Your task to perform on an android device: set default search engine in the chrome app Image 0: 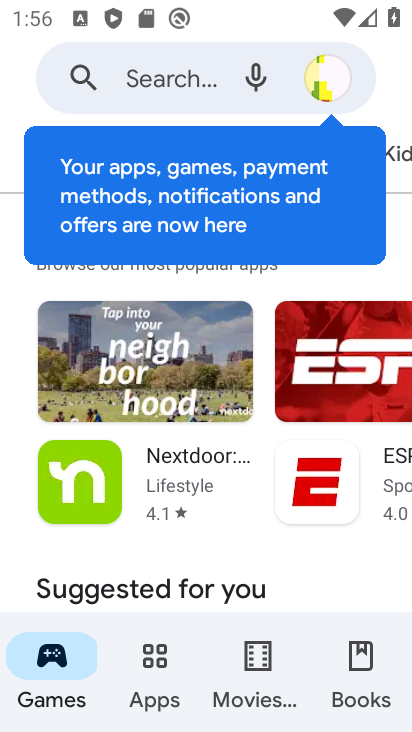
Step 0: press home button
Your task to perform on an android device: set default search engine in the chrome app Image 1: 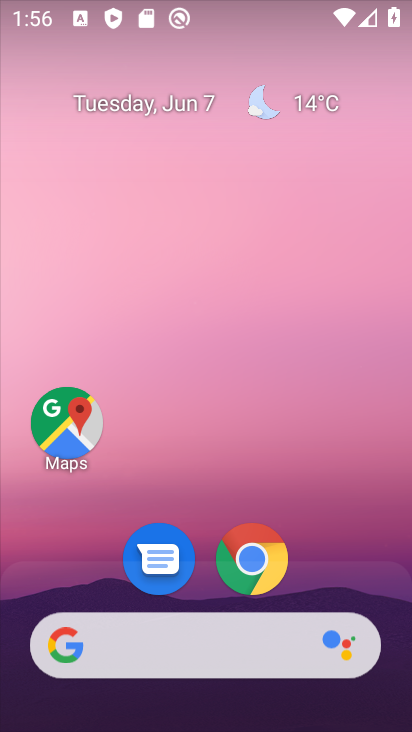
Step 1: click (247, 568)
Your task to perform on an android device: set default search engine in the chrome app Image 2: 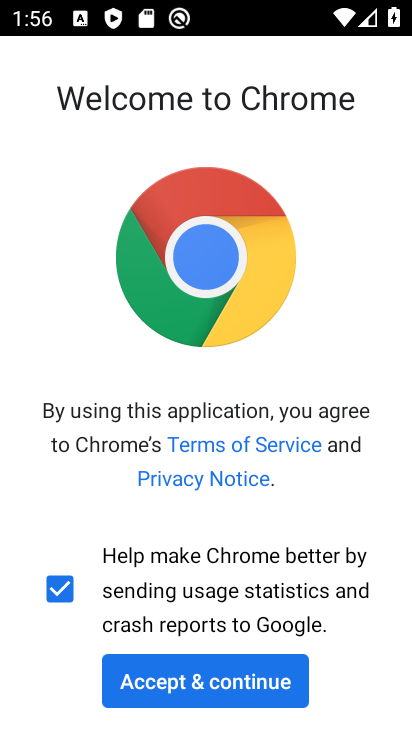
Step 2: click (230, 674)
Your task to perform on an android device: set default search engine in the chrome app Image 3: 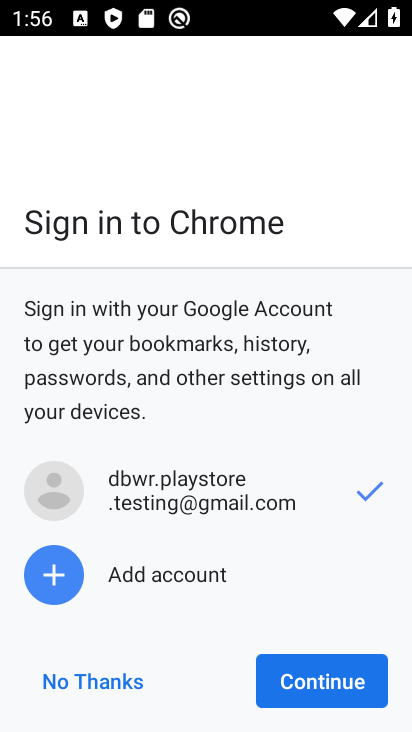
Step 3: click (81, 680)
Your task to perform on an android device: set default search engine in the chrome app Image 4: 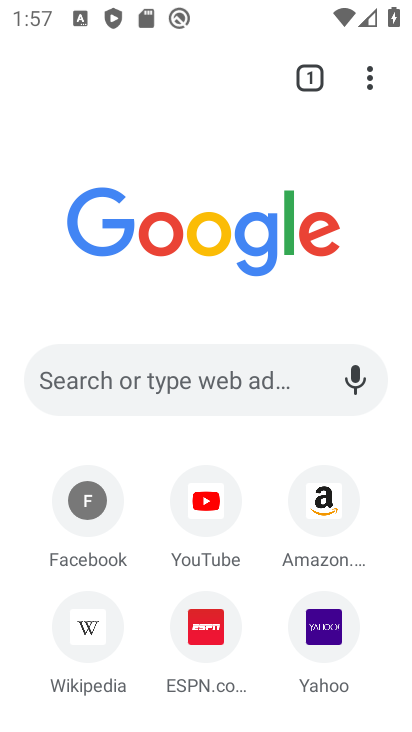
Step 4: click (368, 73)
Your task to perform on an android device: set default search engine in the chrome app Image 5: 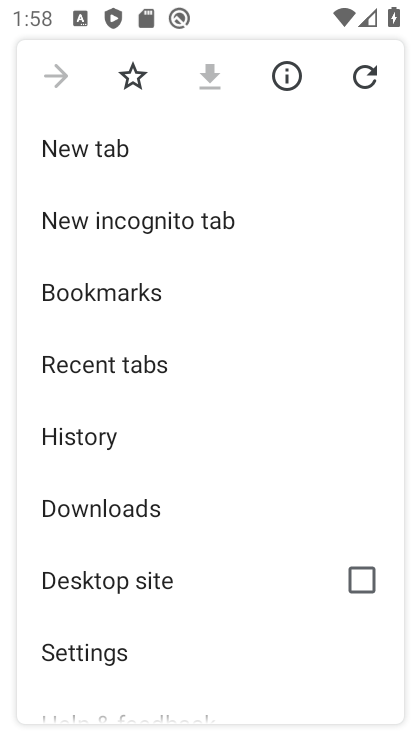
Step 5: click (141, 648)
Your task to perform on an android device: set default search engine in the chrome app Image 6: 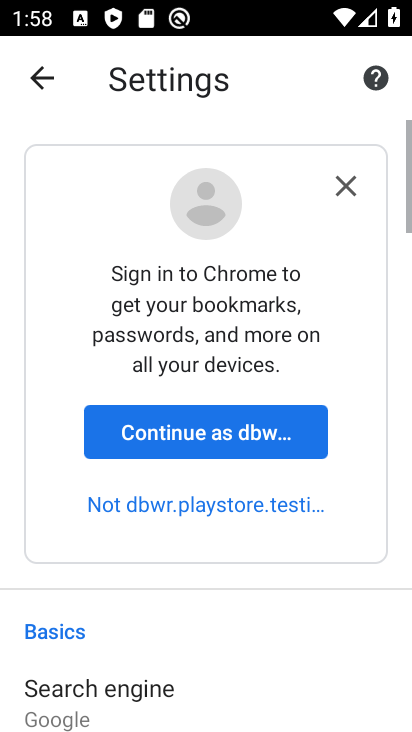
Step 6: click (175, 693)
Your task to perform on an android device: set default search engine in the chrome app Image 7: 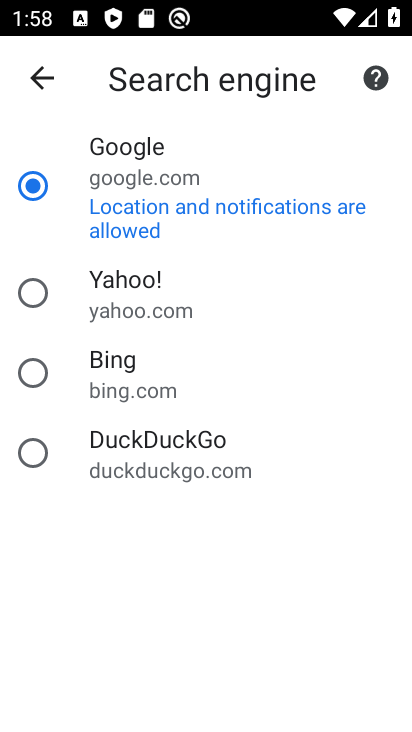
Step 7: task complete